Your task to perform on an android device: Open Amazon Image 0: 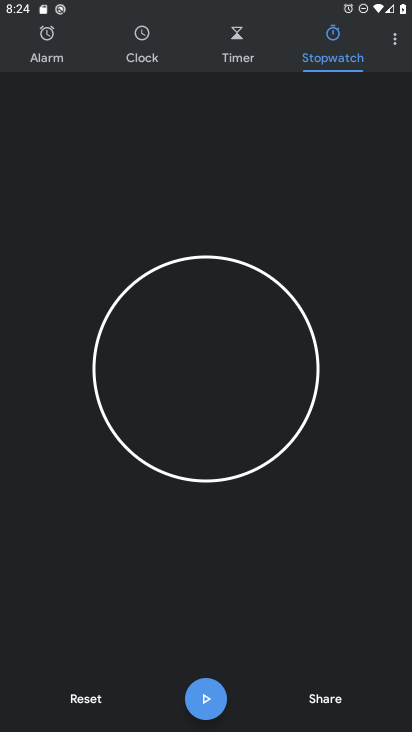
Step 0: press home button
Your task to perform on an android device: Open Amazon Image 1: 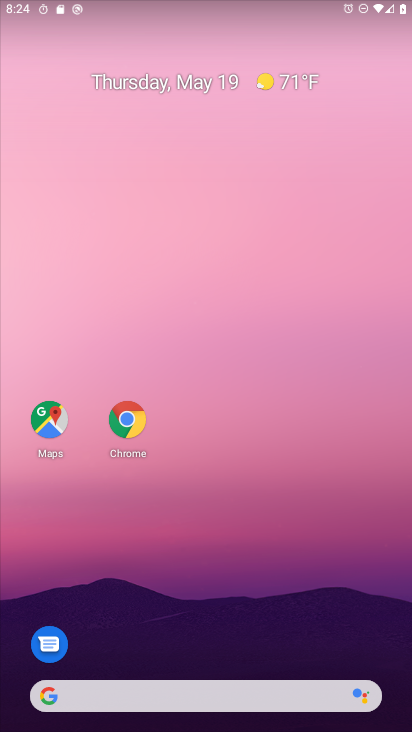
Step 1: click (129, 422)
Your task to perform on an android device: Open Amazon Image 2: 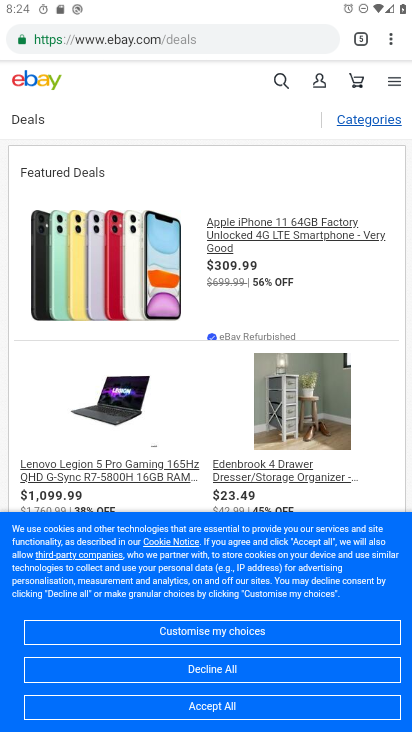
Step 2: click (366, 38)
Your task to perform on an android device: Open Amazon Image 3: 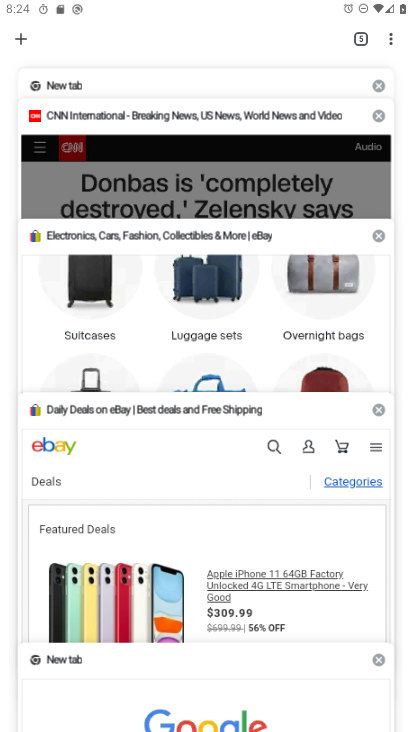
Step 3: click (382, 412)
Your task to perform on an android device: Open Amazon Image 4: 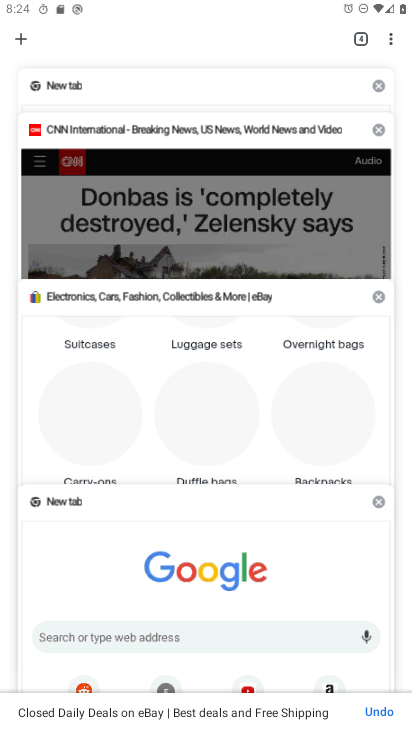
Step 4: click (389, 504)
Your task to perform on an android device: Open Amazon Image 5: 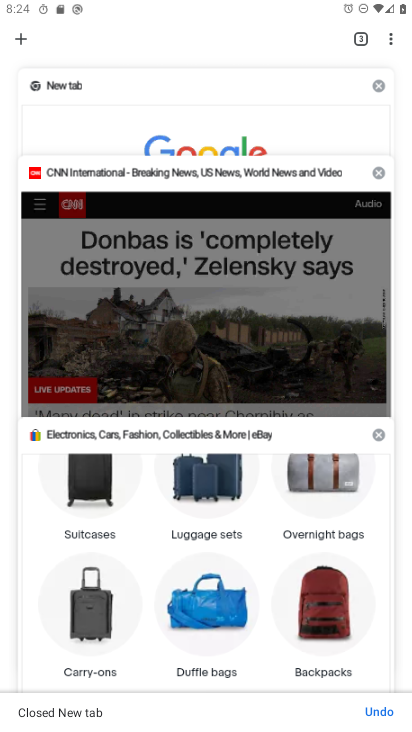
Step 5: click (385, 431)
Your task to perform on an android device: Open Amazon Image 6: 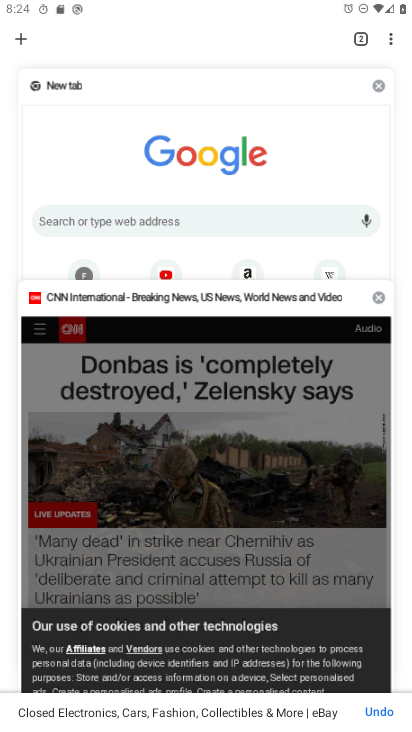
Step 6: click (378, 298)
Your task to perform on an android device: Open Amazon Image 7: 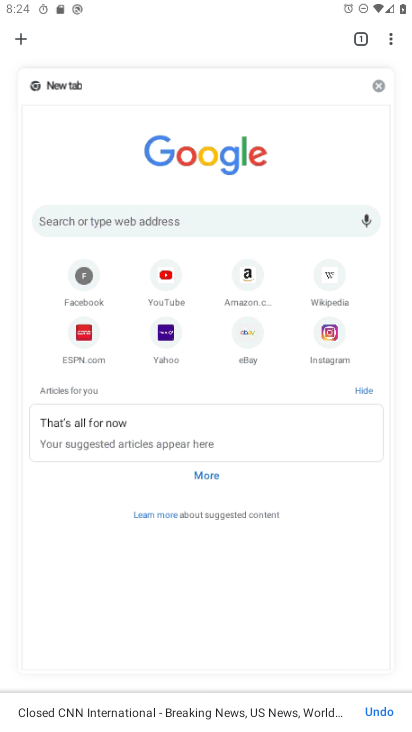
Step 7: click (131, 153)
Your task to perform on an android device: Open Amazon Image 8: 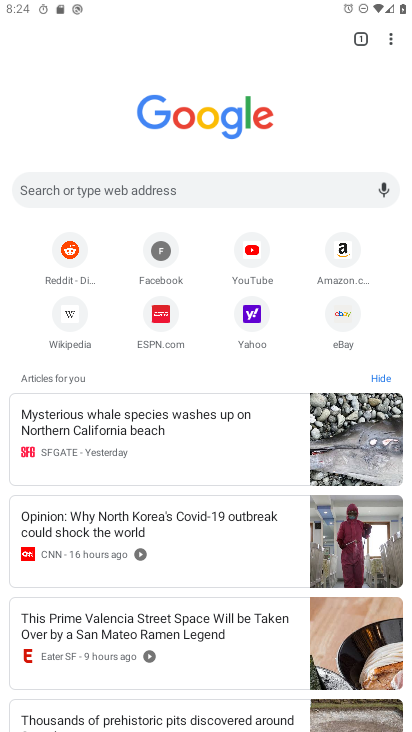
Step 8: click (357, 255)
Your task to perform on an android device: Open Amazon Image 9: 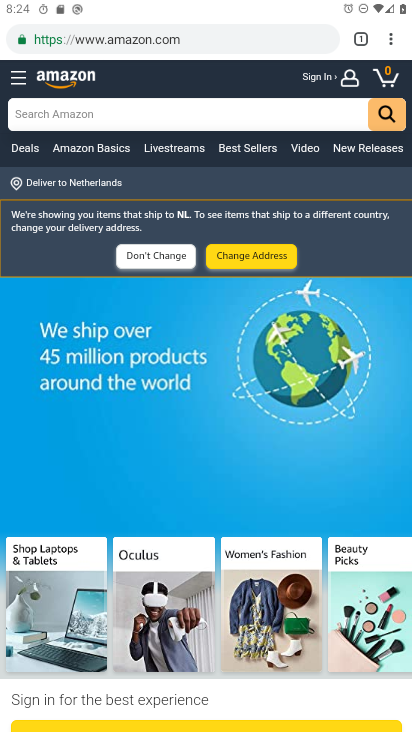
Step 9: task complete